Your task to perform on an android device: turn on showing notifications on the lock screen Image 0: 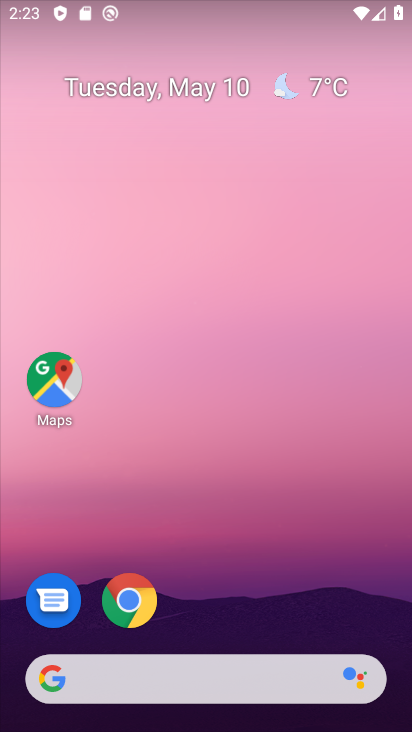
Step 0: drag from (244, 478) to (227, 218)
Your task to perform on an android device: turn on showing notifications on the lock screen Image 1: 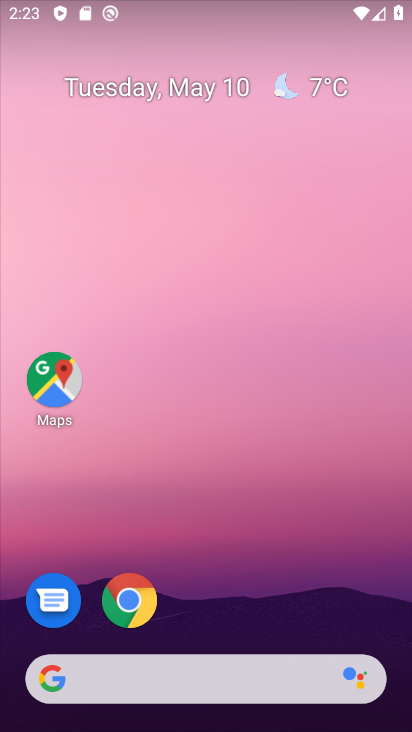
Step 1: drag from (242, 679) to (268, 41)
Your task to perform on an android device: turn on showing notifications on the lock screen Image 2: 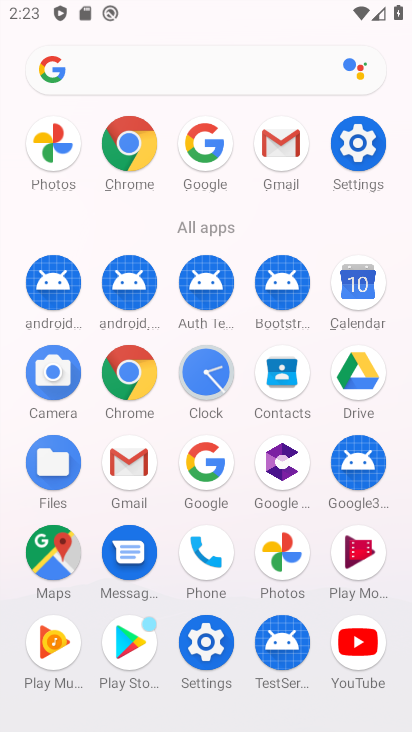
Step 2: click (346, 162)
Your task to perform on an android device: turn on showing notifications on the lock screen Image 3: 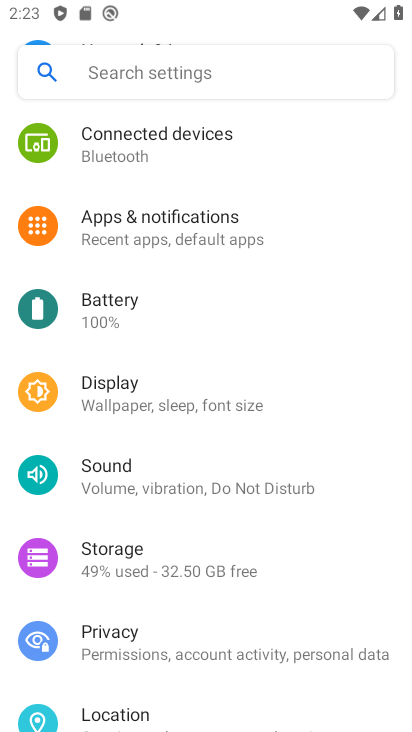
Step 3: click (112, 229)
Your task to perform on an android device: turn on showing notifications on the lock screen Image 4: 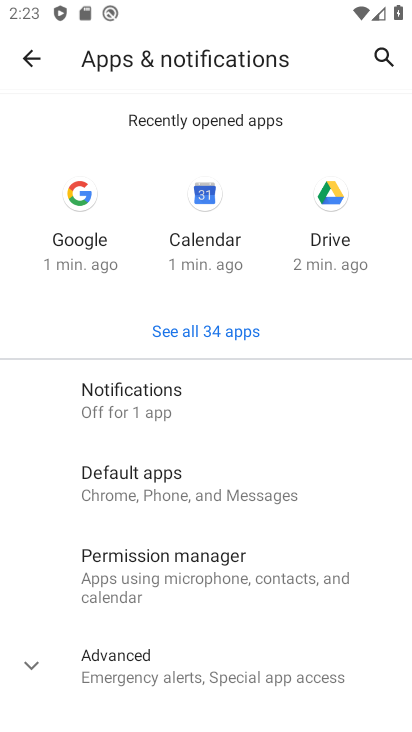
Step 4: click (164, 421)
Your task to perform on an android device: turn on showing notifications on the lock screen Image 5: 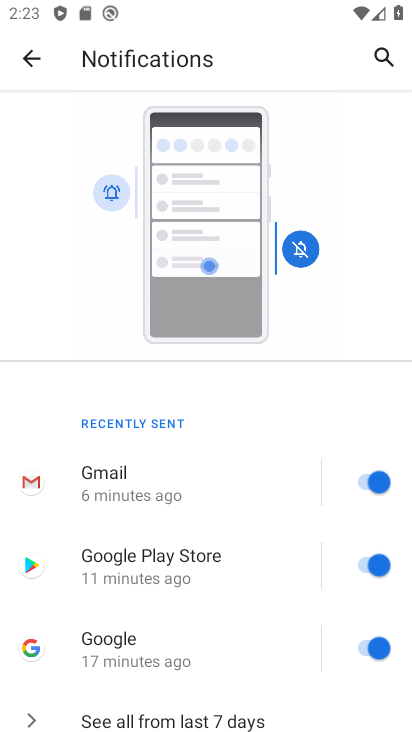
Step 5: drag from (229, 578) to (220, 259)
Your task to perform on an android device: turn on showing notifications on the lock screen Image 6: 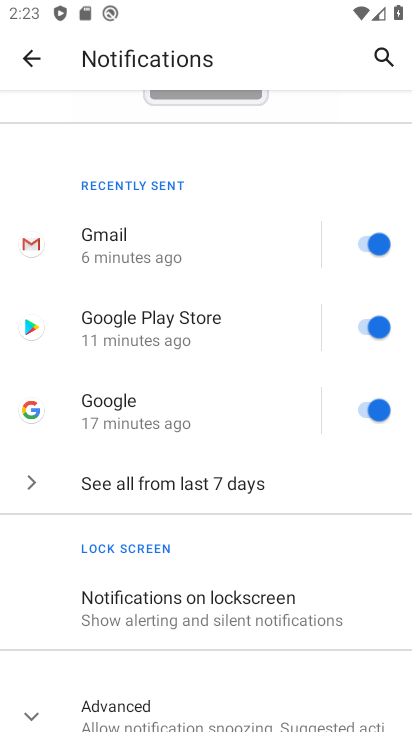
Step 6: click (264, 612)
Your task to perform on an android device: turn on showing notifications on the lock screen Image 7: 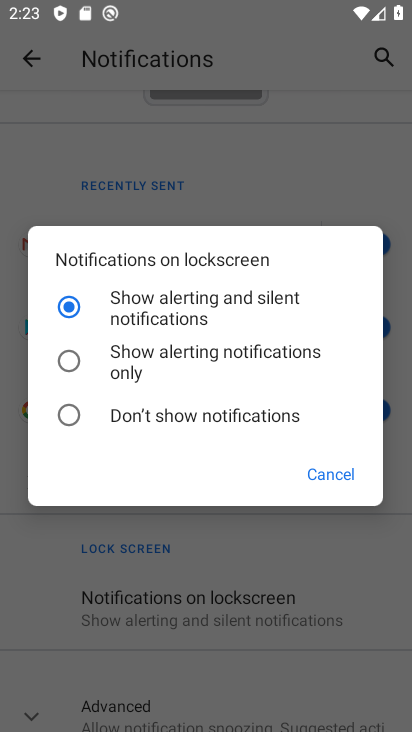
Step 7: click (185, 308)
Your task to perform on an android device: turn on showing notifications on the lock screen Image 8: 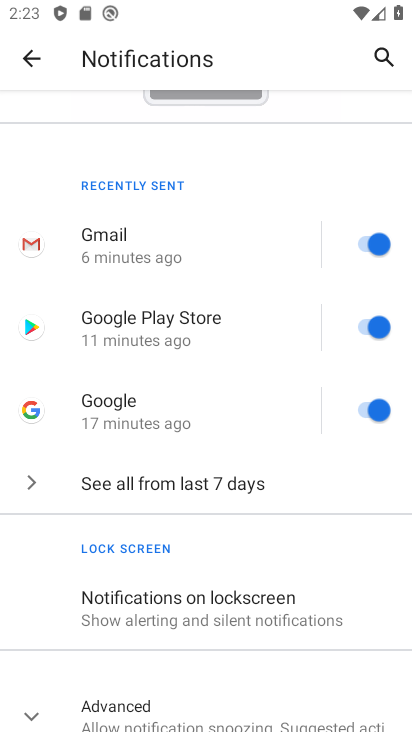
Step 8: task complete